Your task to perform on an android device: Open calendar and show me the third week of next month Image 0: 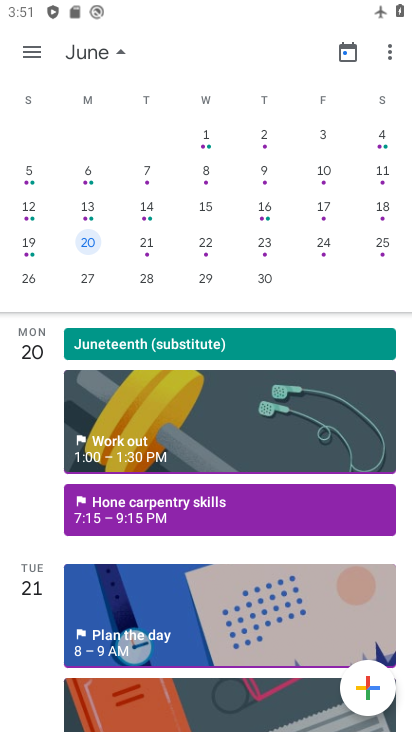
Step 0: click (89, 202)
Your task to perform on an android device: Open calendar and show me the third week of next month Image 1: 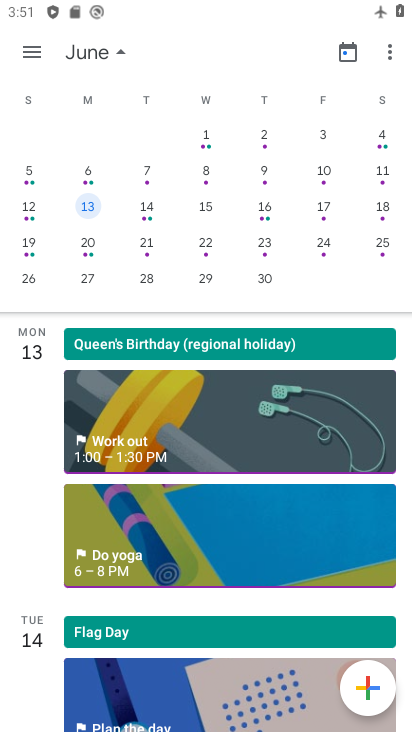
Step 1: task complete